Your task to perform on an android device: change keyboard looks Image 0: 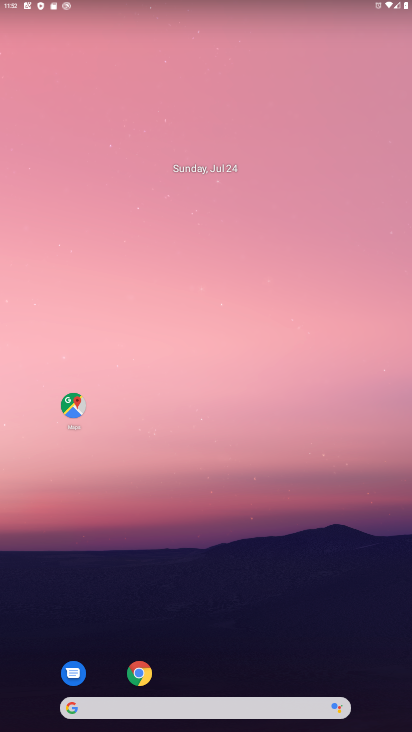
Step 0: drag from (330, 584) to (262, 77)
Your task to perform on an android device: change keyboard looks Image 1: 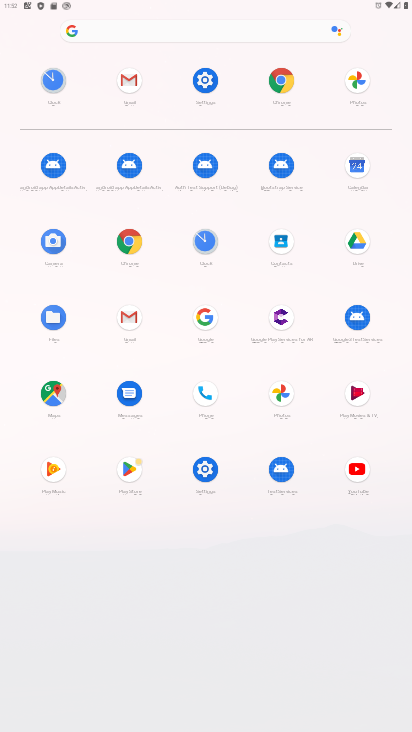
Step 1: click (207, 63)
Your task to perform on an android device: change keyboard looks Image 2: 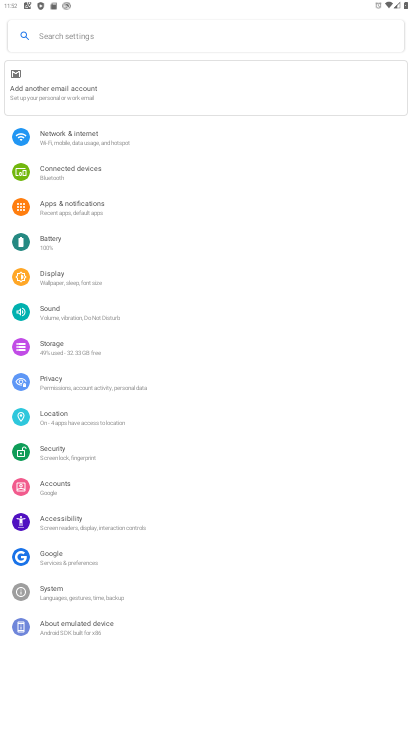
Step 2: click (85, 594)
Your task to perform on an android device: change keyboard looks Image 3: 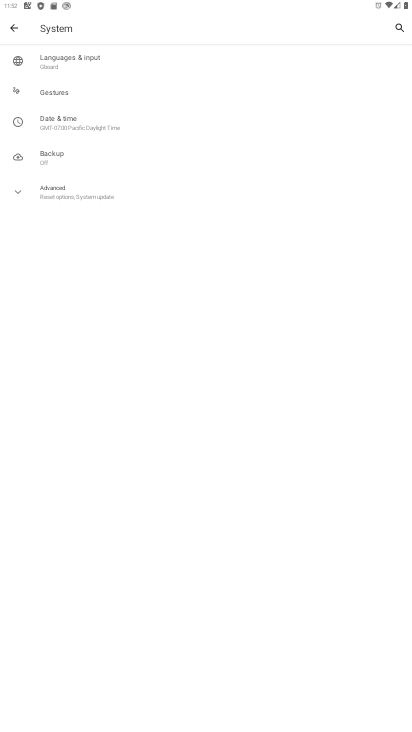
Step 3: click (68, 63)
Your task to perform on an android device: change keyboard looks Image 4: 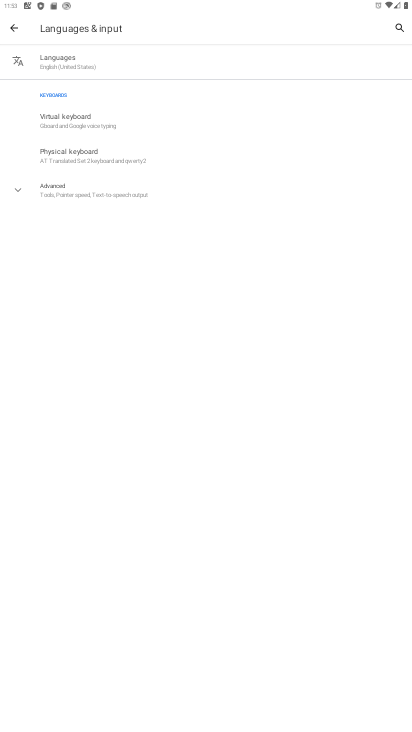
Step 4: click (74, 116)
Your task to perform on an android device: change keyboard looks Image 5: 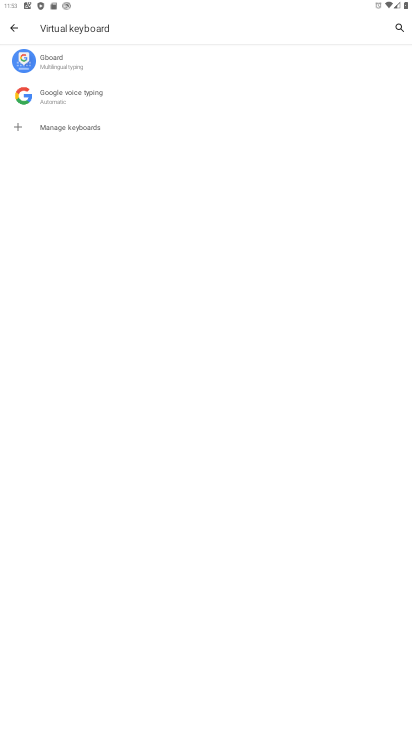
Step 5: click (75, 67)
Your task to perform on an android device: change keyboard looks Image 6: 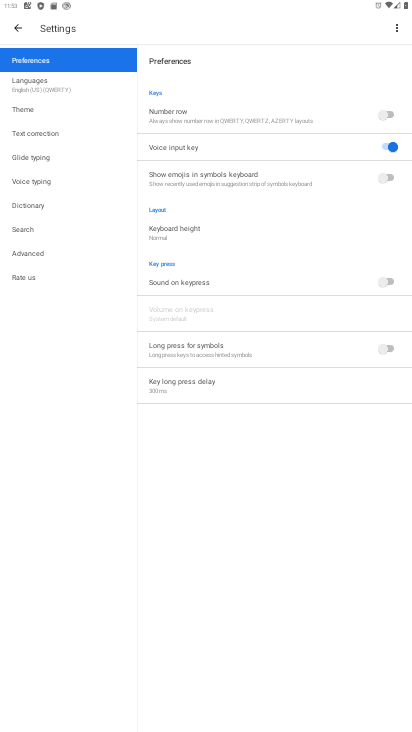
Step 6: click (34, 112)
Your task to perform on an android device: change keyboard looks Image 7: 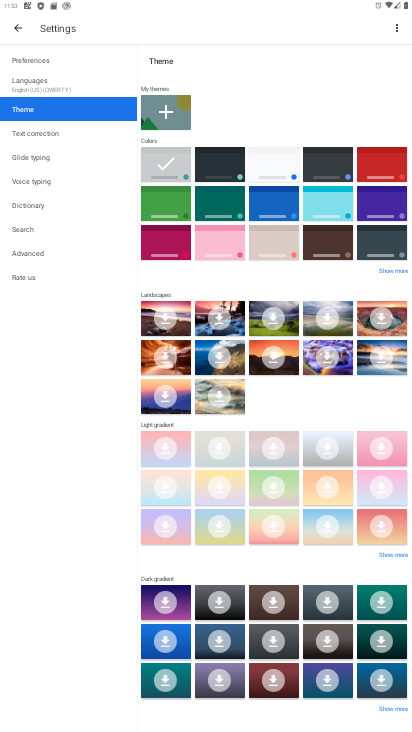
Step 7: click (267, 158)
Your task to perform on an android device: change keyboard looks Image 8: 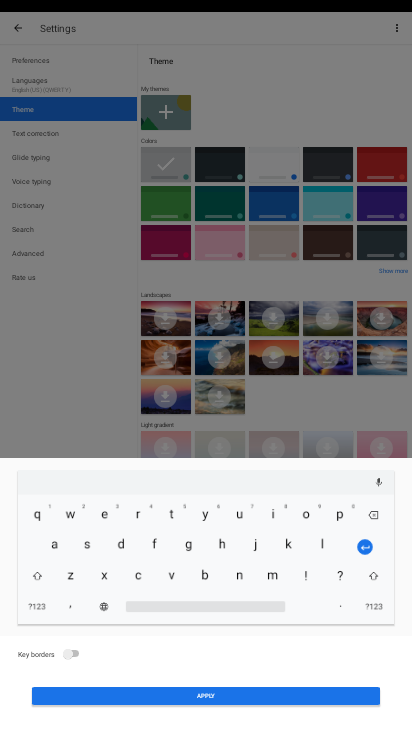
Step 8: click (255, 691)
Your task to perform on an android device: change keyboard looks Image 9: 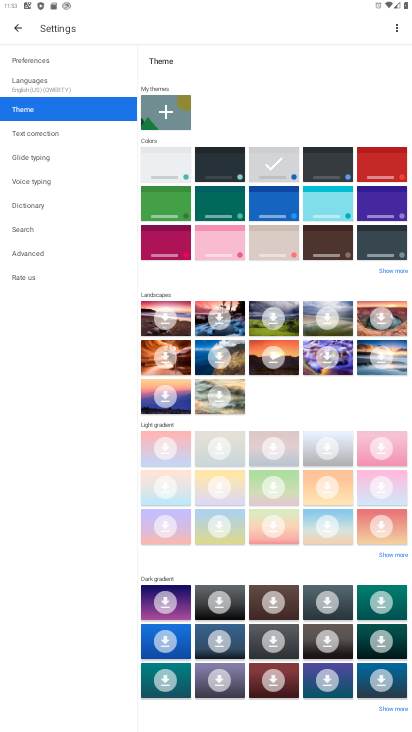
Step 9: task complete